Your task to perform on an android device: Open CNN.com Image 0: 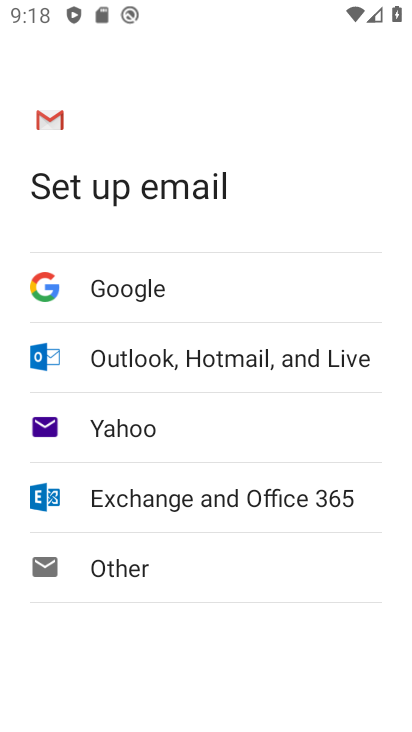
Step 0: click (256, 597)
Your task to perform on an android device: Open CNN.com Image 1: 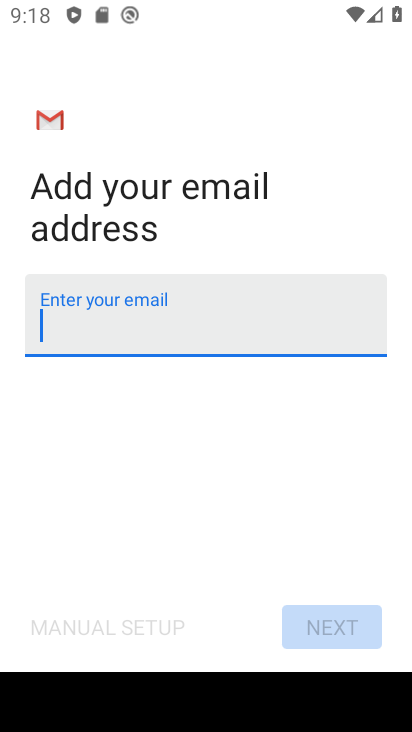
Step 1: press home button
Your task to perform on an android device: Open CNN.com Image 2: 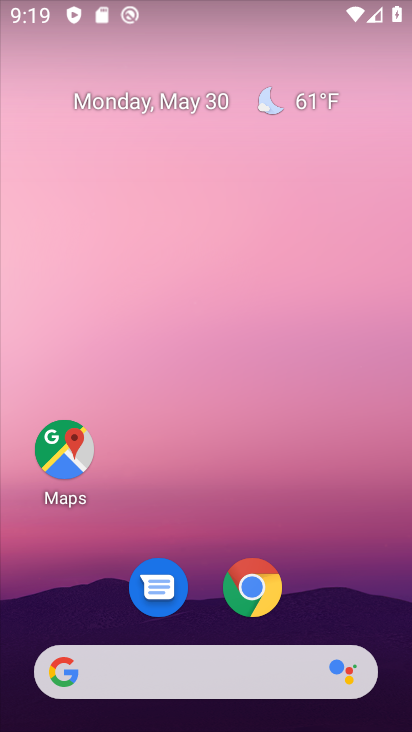
Step 2: click (242, 602)
Your task to perform on an android device: Open CNN.com Image 3: 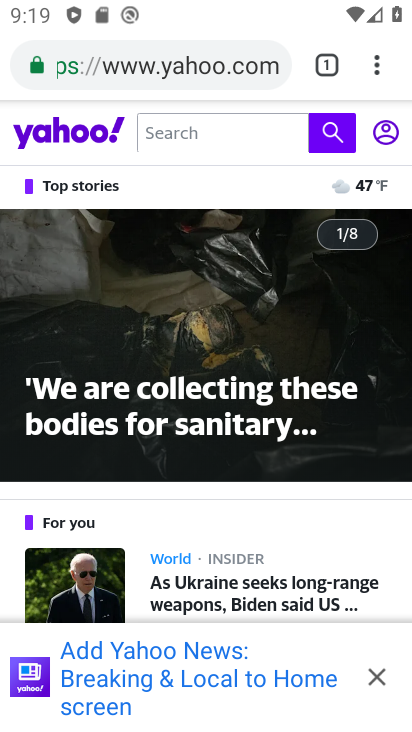
Step 3: click (333, 74)
Your task to perform on an android device: Open CNN.com Image 4: 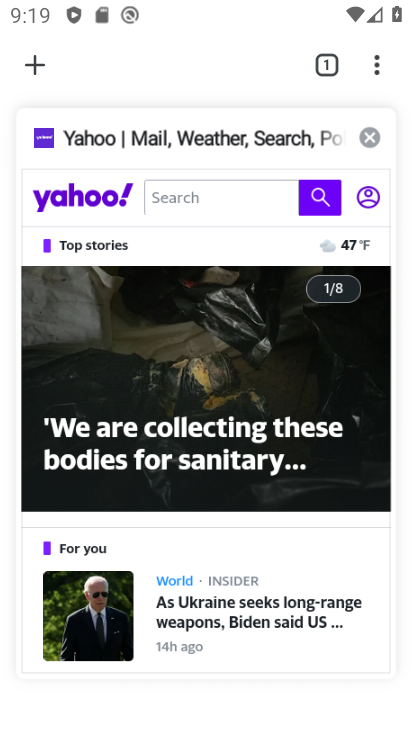
Step 4: click (35, 55)
Your task to perform on an android device: Open CNN.com Image 5: 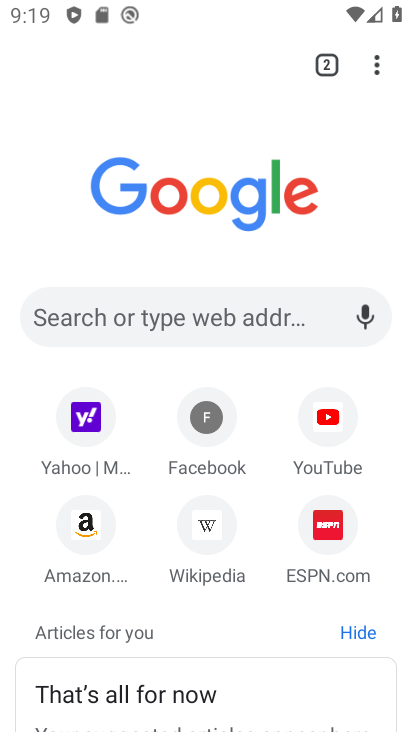
Step 5: click (240, 329)
Your task to perform on an android device: Open CNN.com Image 6: 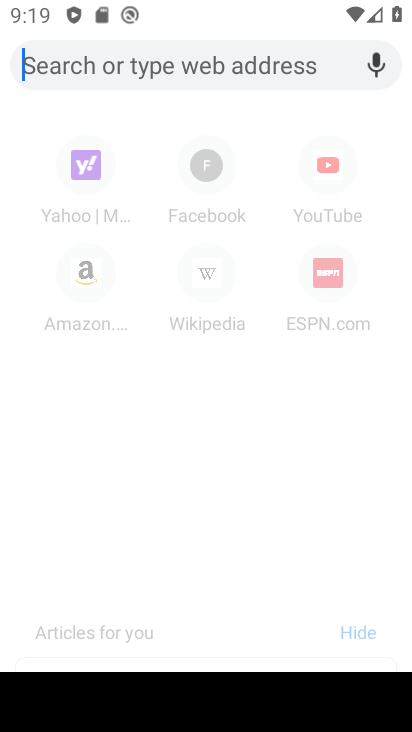
Step 6: type "cnn"
Your task to perform on an android device: Open CNN.com Image 7: 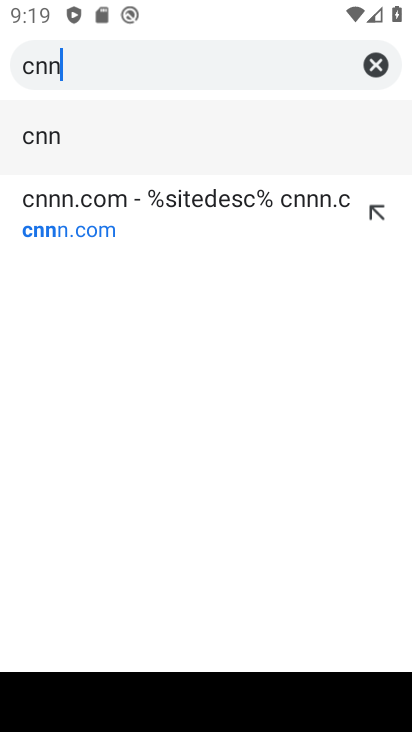
Step 7: type ""
Your task to perform on an android device: Open CNN.com Image 8: 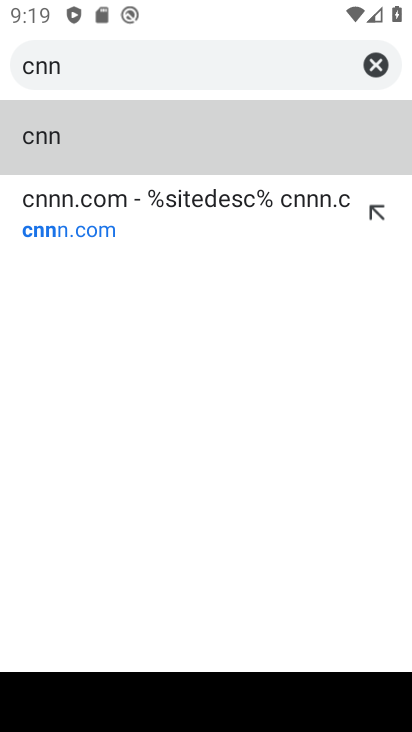
Step 8: click (115, 209)
Your task to perform on an android device: Open CNN.com Image 9: 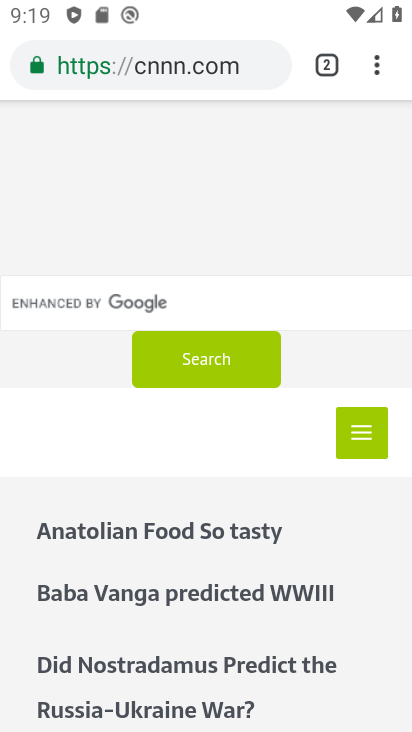
Step 9: task complete